Your task to perform on an android device: Open the web browser Image 0: 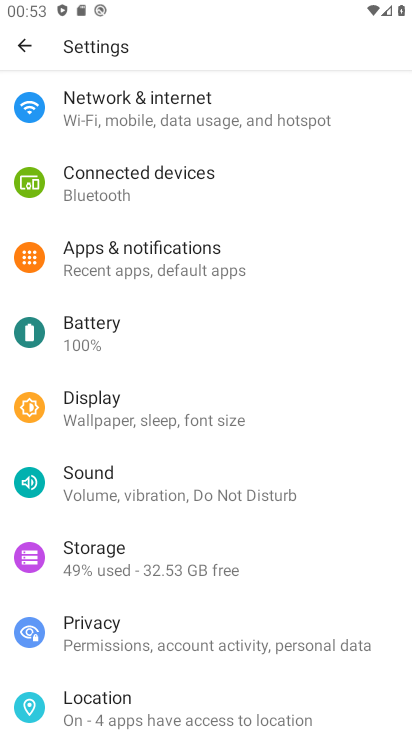
Step 0: press home button
Your task to perform on an android device: Open the web browser Image 1: 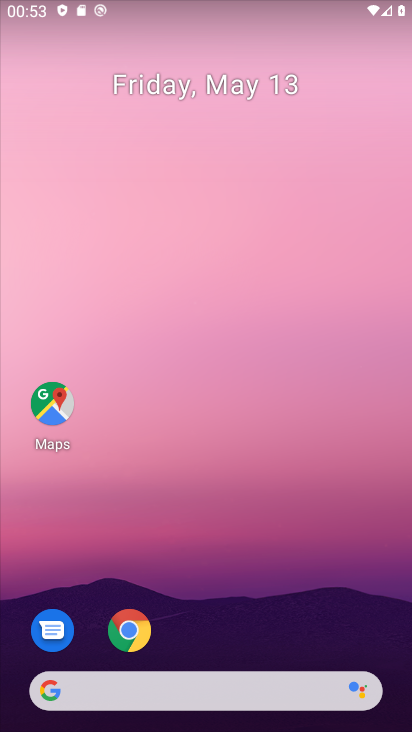
Step 1: drag from (260, 726) to (227, 276)
Your task to perform on an android device: Open the web browser Image 2: 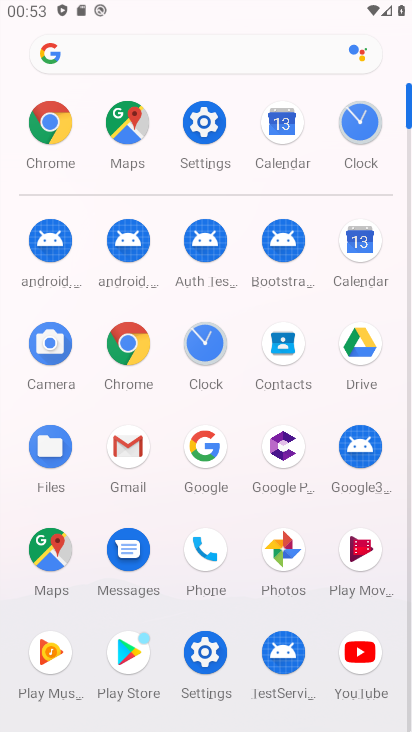
Step 2: click (62, 122)
Your task to perform on an android device: Open the web browser Image 3: 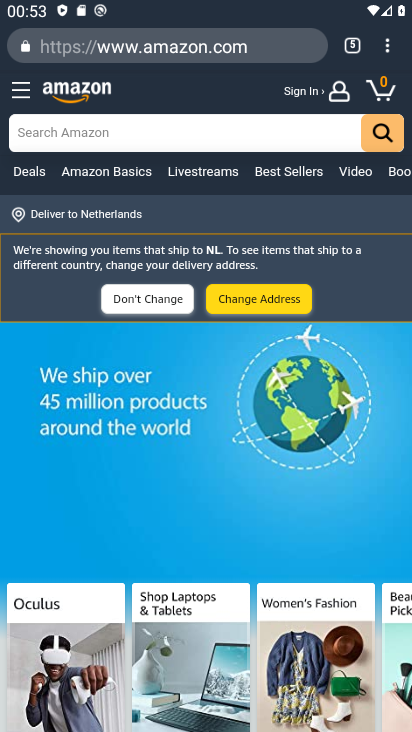
Step 3: click (186, 54)
Your task to perform on an android device: Open the web browser Image 4: 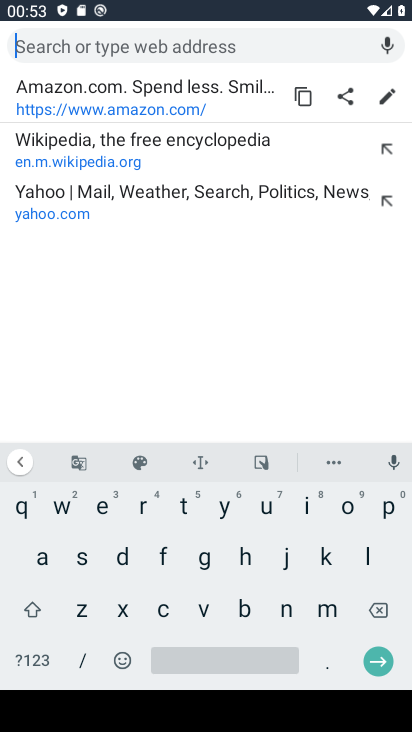
Step 4: task complete